Your task to perform on an android device: toggle improve location accuracy Image 0: 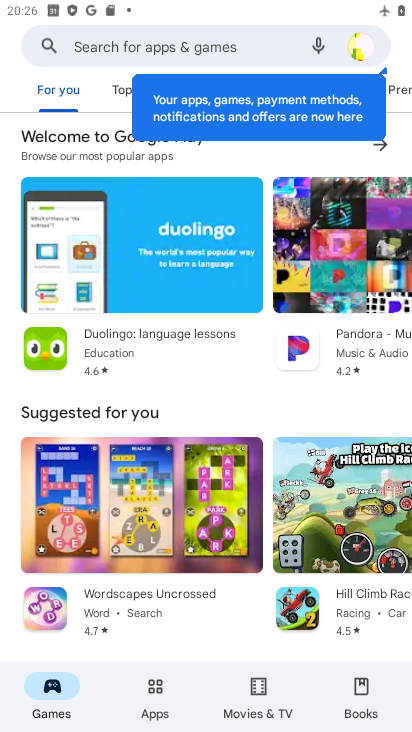
Step 0: press home button
Your task to perform on an android device: toggle improve location accuracy Image 1: 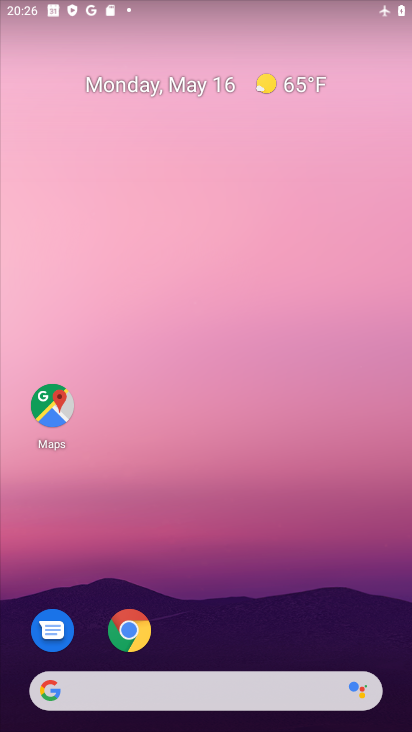
Step 1: drag from (223, 643) to (224, 208)
Your task to perform on an android device: toggle improve location accuracy Image 2: 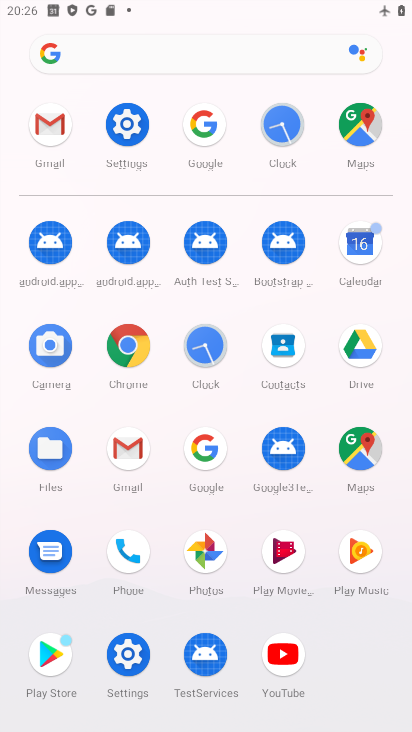
Step 2: click (132, 127)
Your task to perform on an android device: toggle improve location accuracy Image 3: 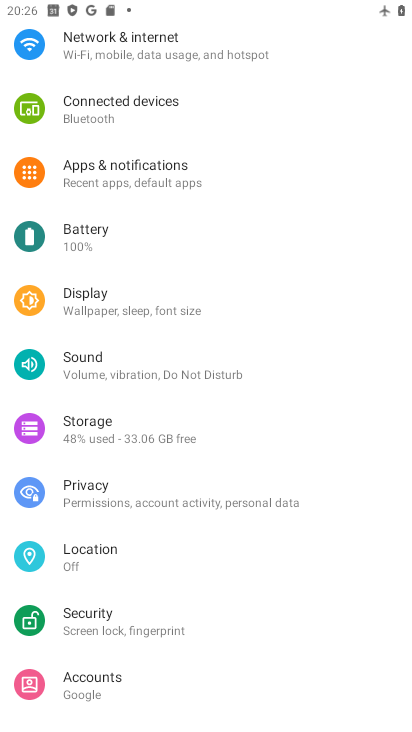
Step 3: click (149, 561)
Your task to perform on an android device: toggle improve location accuracy Image 4: 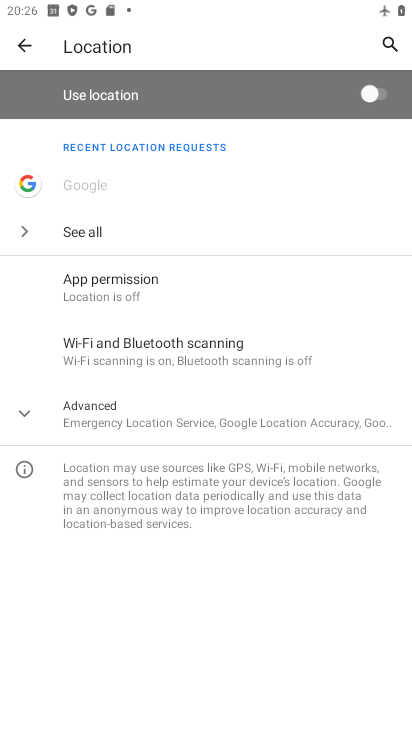
Step 4: click (114, 400)
Your task to perform on an android device: toggle improve location accuracy Image 5: 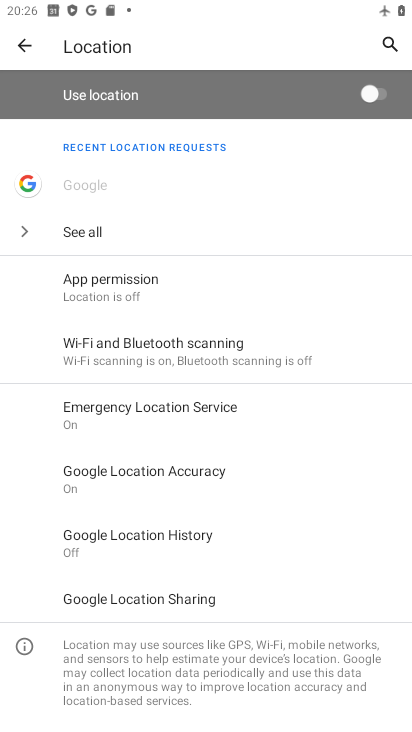
Step 5: drag from (155, 525) to (198, 401)
Your task to perform on an android device: toggle improve location accuracy Image 6: 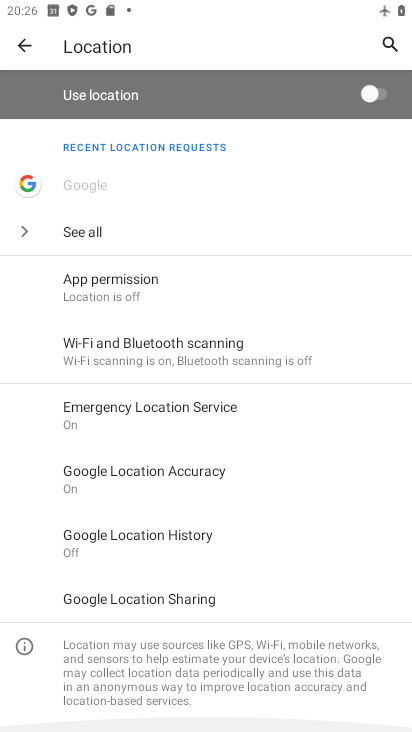
Step 6: click (150, 474)
Your task to perform on an android device: toggle improve location accuracy Image 7: 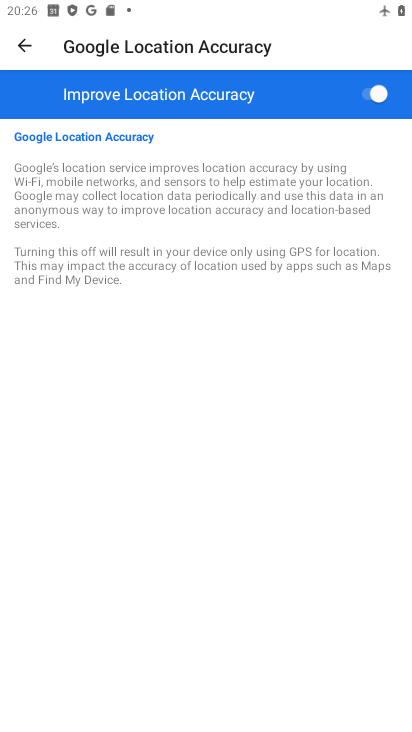
Step 7: click (363, 90)
Your task to perform on an android device: toggle improve location accuracy Image 8: 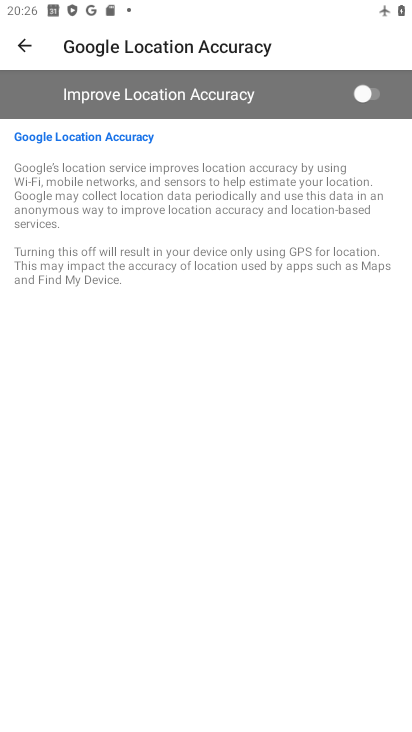
Step 8: task complete